Your task to perform on an android device: stop showing notifications on the lock screen Image 0: 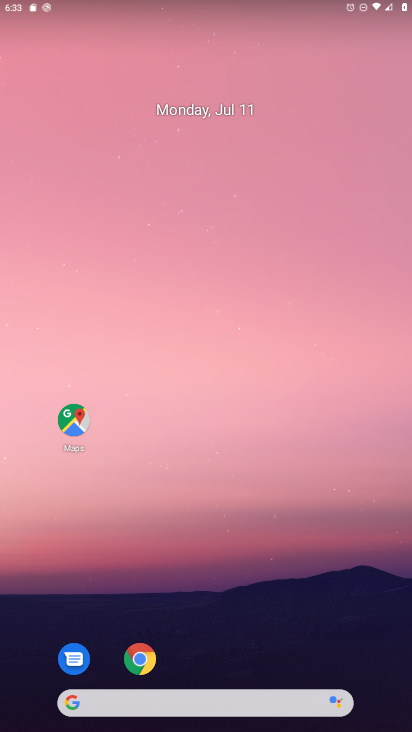
Step 0: drag from (378, 645) to (344, 122)
Your task to perform on an android device: stop showing notifications on the lock screen Image 1: 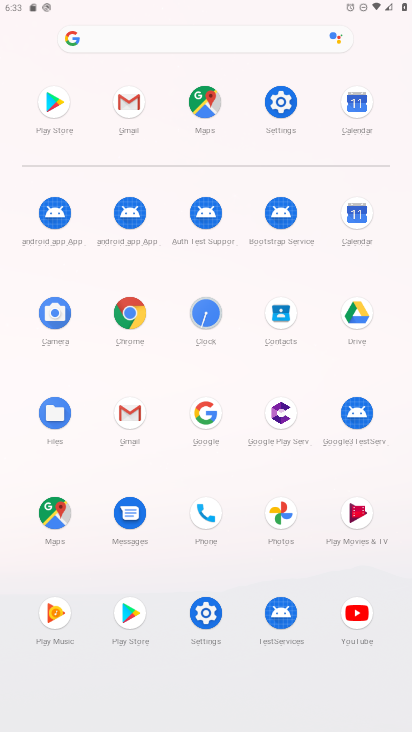
Step 1: click (206, 616)
Your task to perform on an android device: stop showing notifications on the lock screen Image 2: 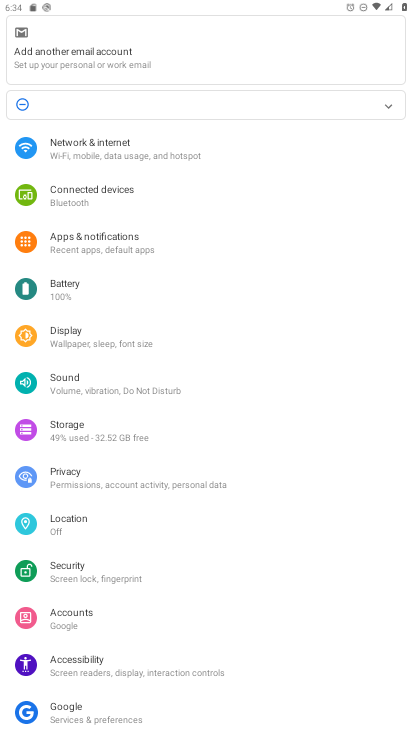
Step 2: click (77, 236)
Your task to perform on an android device: stop showing notifications on the lock screen Image 3: 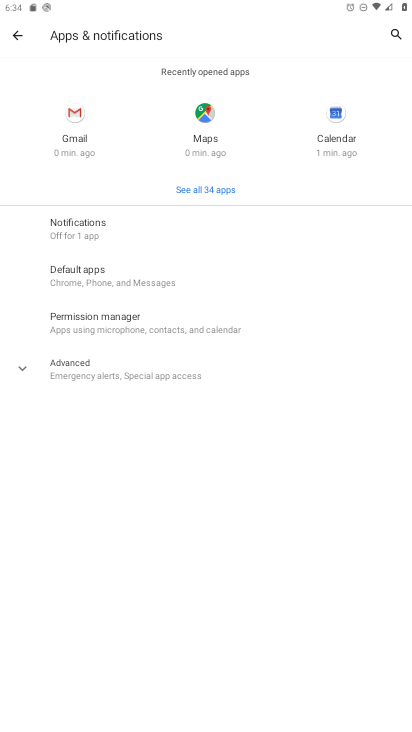
Step 3: click (72, 234)
Your task to perform on an android device: stop showing notifications on the lock screen Image 4: 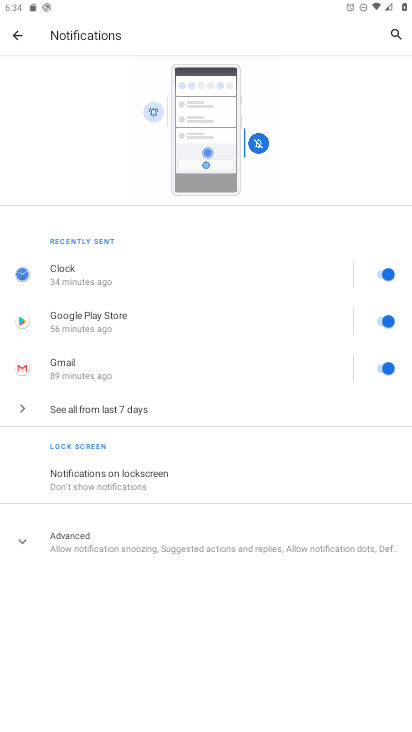
Step 4: click (58, 540)
Your task to perform on an android device: stop showing notifications on the lock screen Image 5: 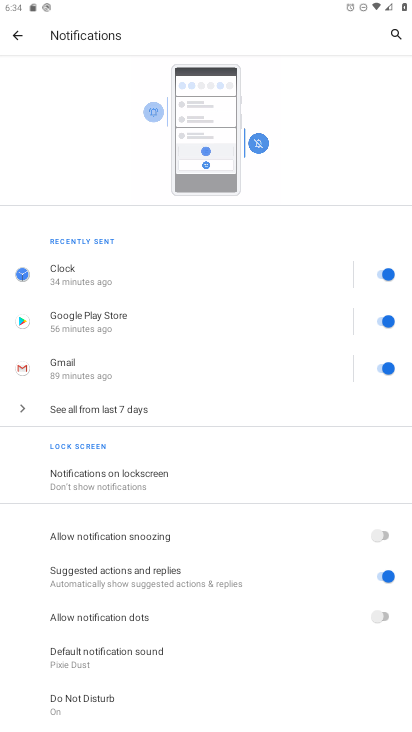
Step 5: click (73, 477)
Your task to perform on an android device: stop showing notifications on the lock screen Image 6: 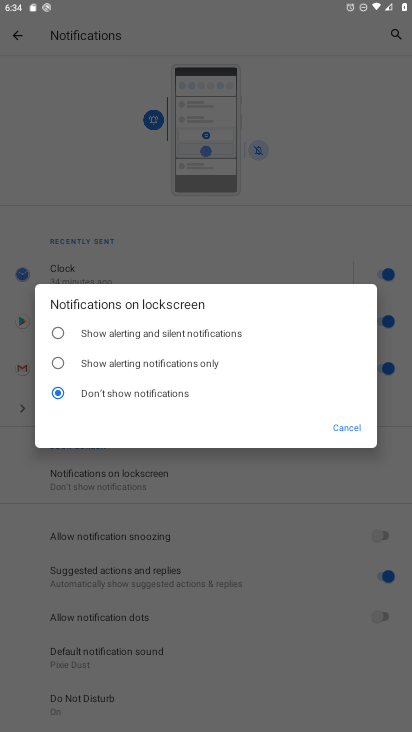
Step 6: task complete